Your task to perform on an android device: Clear all items from cart on ebay. Image 0: 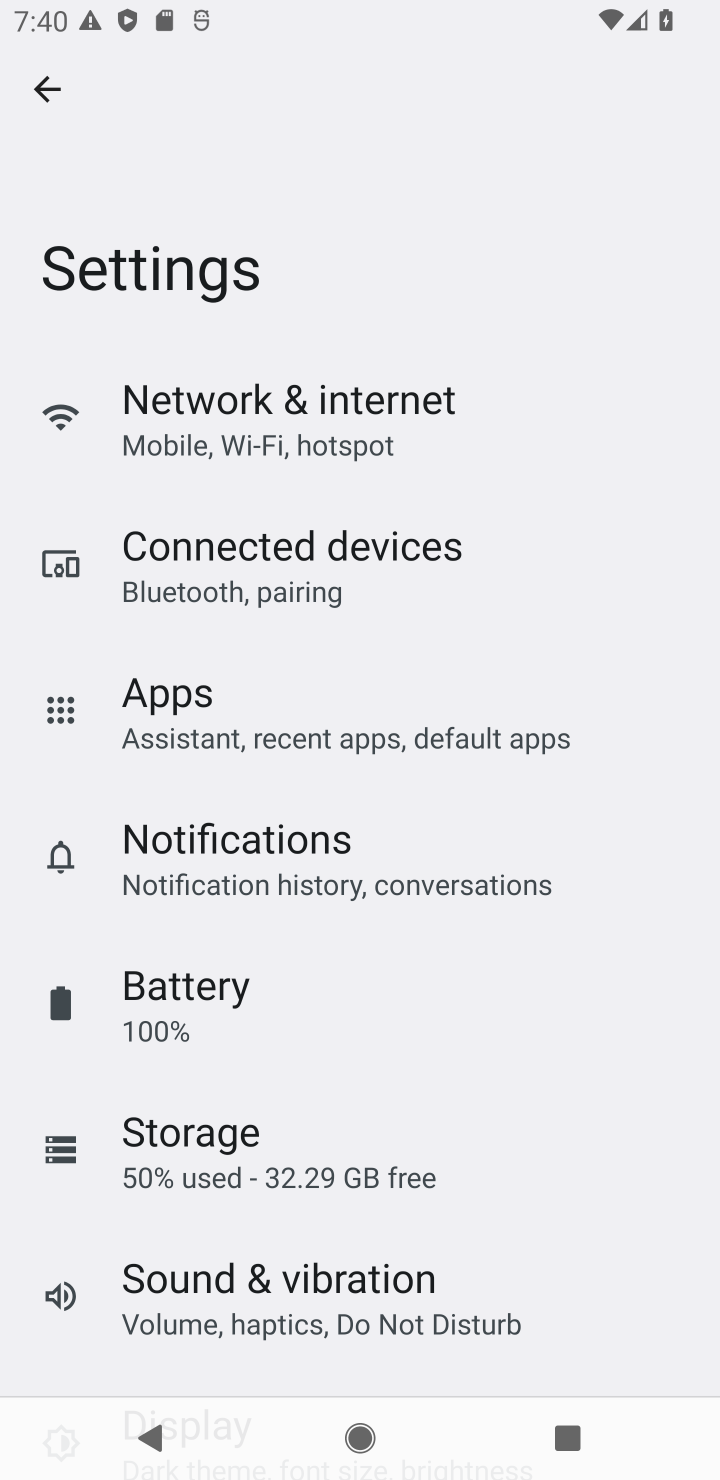
Step 0: press home button
Your task to perform on an android device: Clear all items from cart on ebay. Image 1: 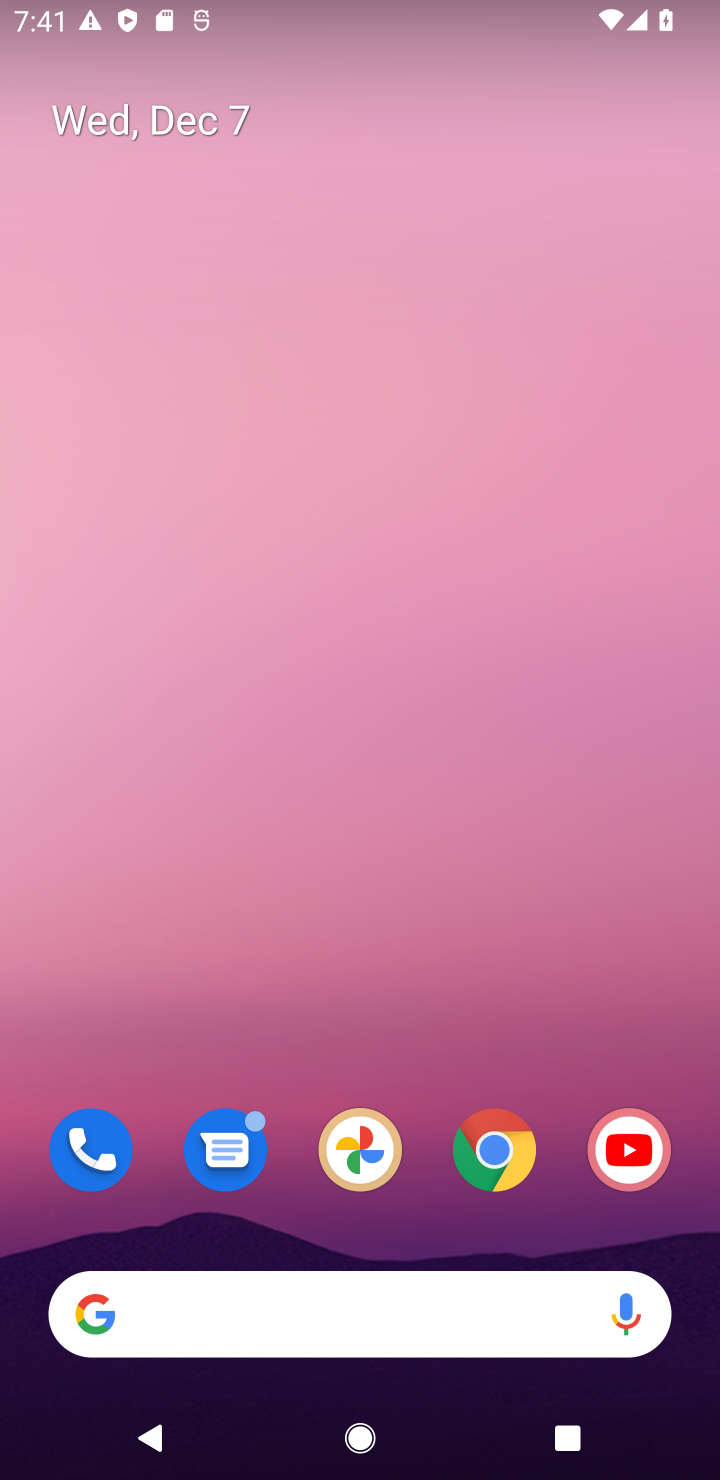
Step 1: click (482, 1155)
Your task to perform on an android device: Clear all items from cart on ebay. Image 2: 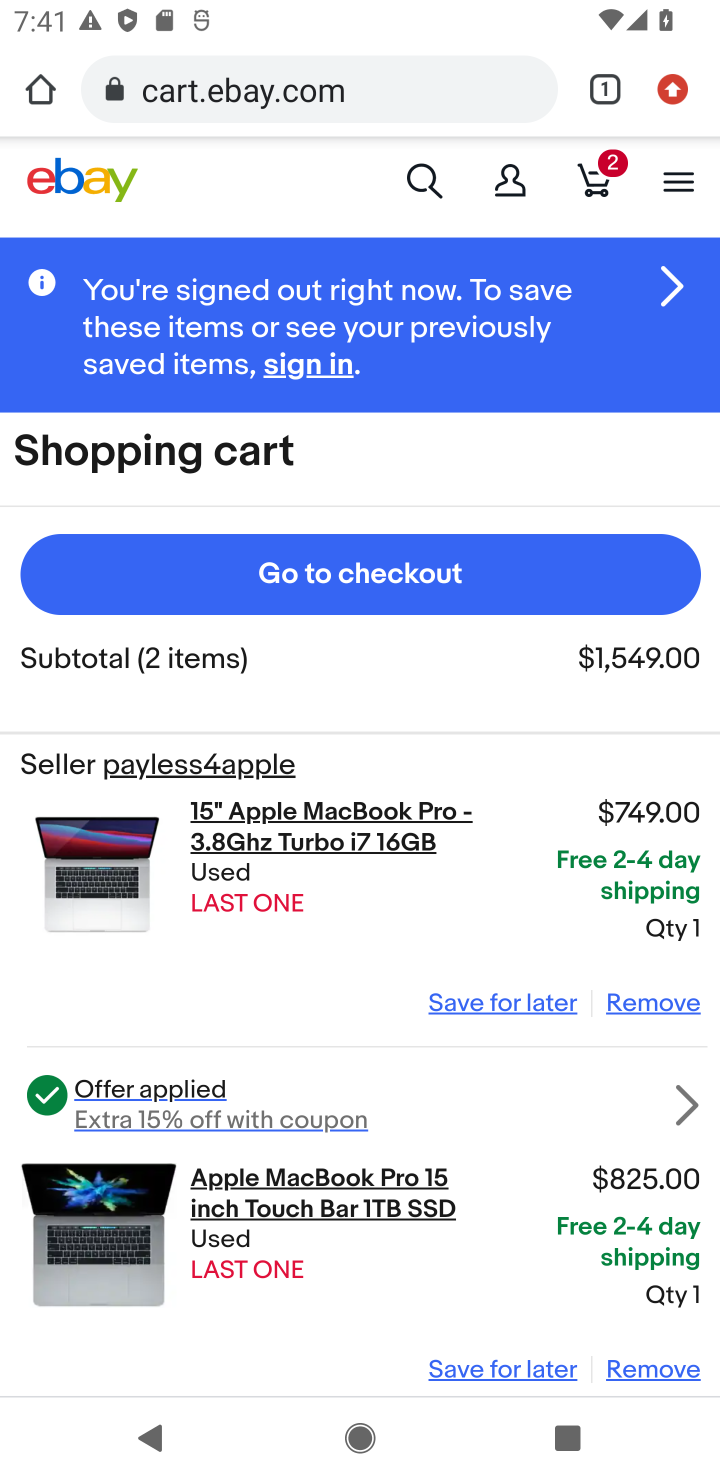
Step 2: click (604, 173)
Your task to perform on an android device: Clear all items from cart on ebay. Image 3: 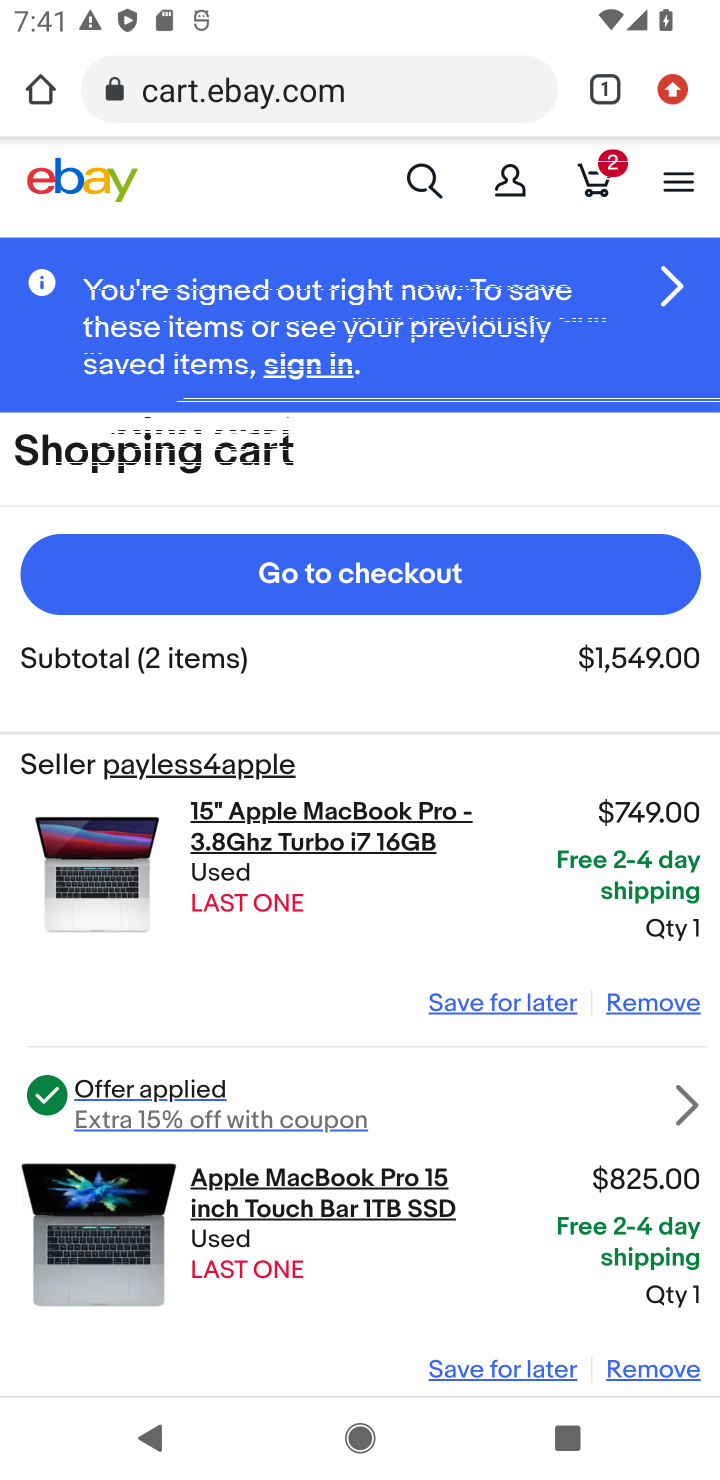
Step 3: click (643, 1016)
Your task to perform on an android device: Clear all items from cart on ebay. Image 4: 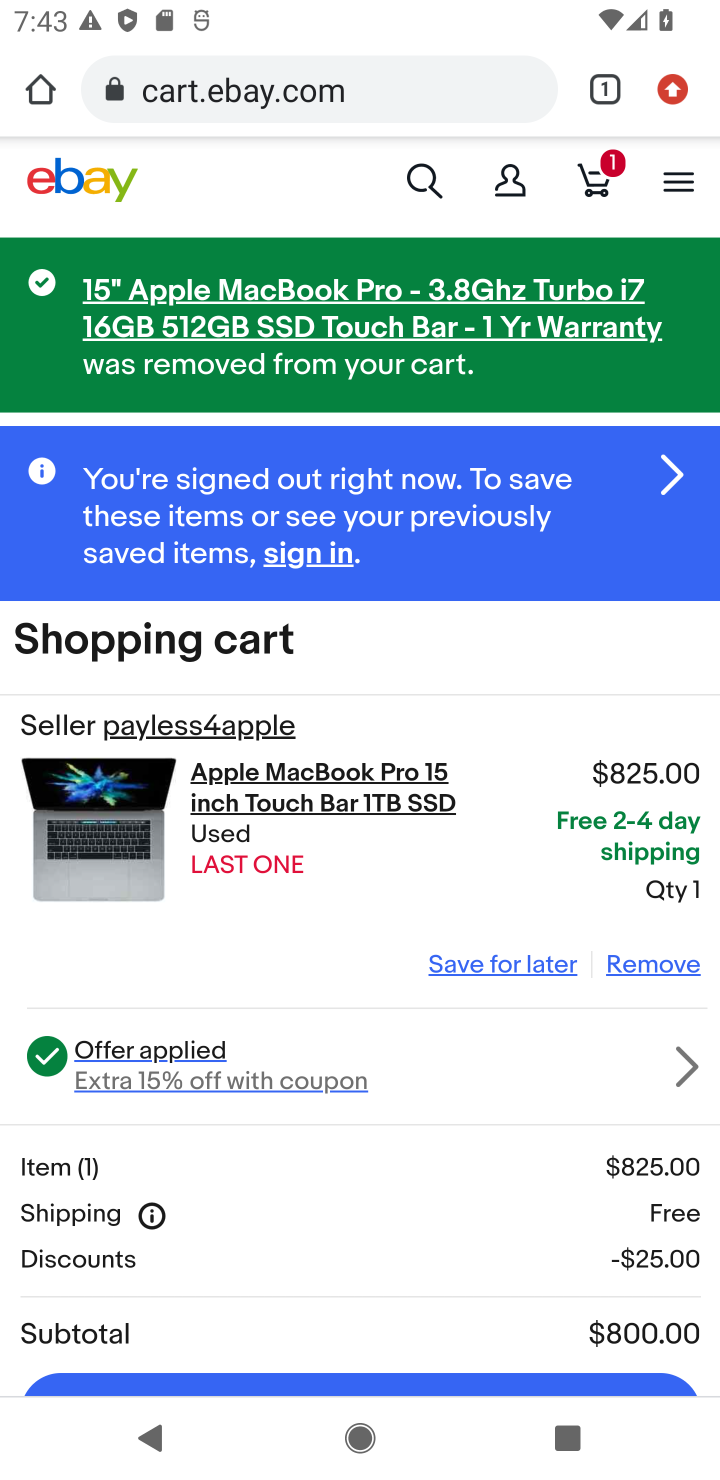
Step 4: click (644, 971)
Your task to perform on an android device: Clear all items from cart on ebay. Image 5: 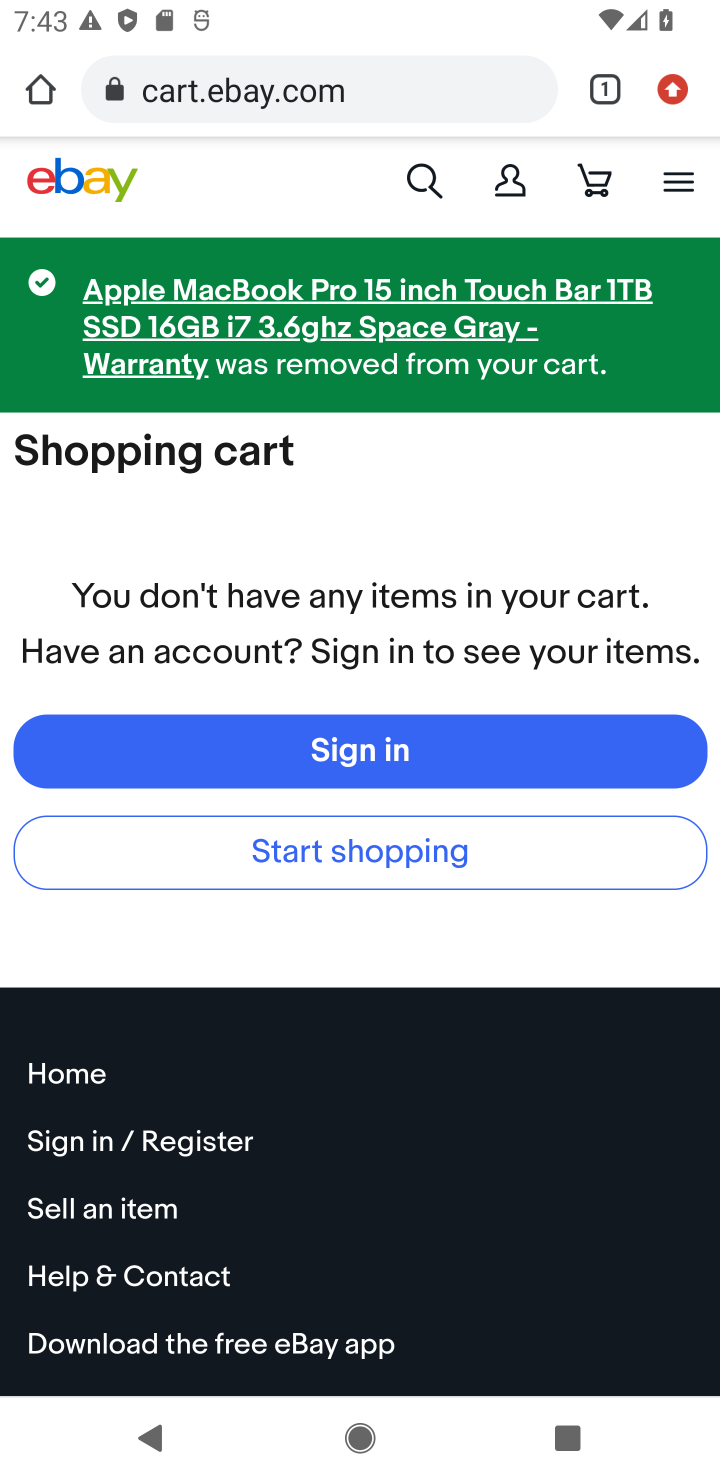
Step 5: task complete